Your task to perform on an android device: turn off data saver in the chrome app Image 0: 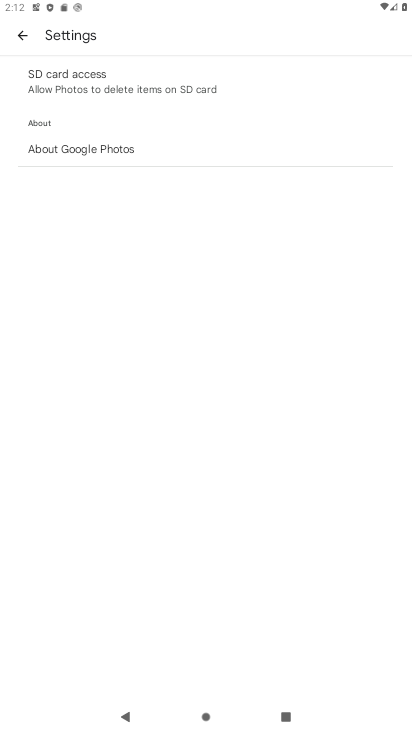
Step 0: press home button
Your task to perform on an android device: turn off data saver in the chrome app Image 1: 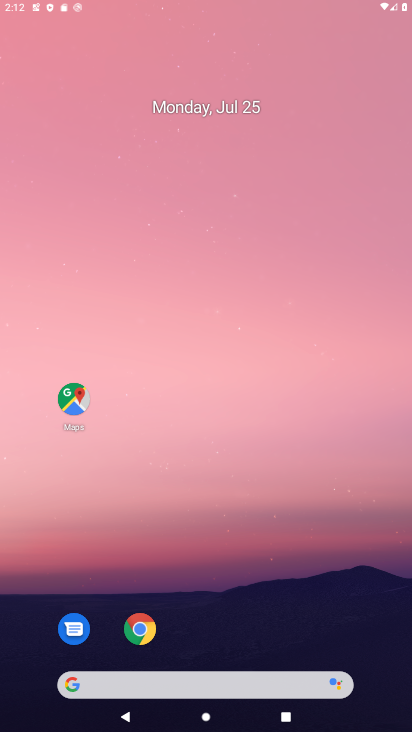
Step 1: drag from (230, 605) to (299, 74)
Your task to perform on an android device: turn off data saver in the chrome app Image 2: 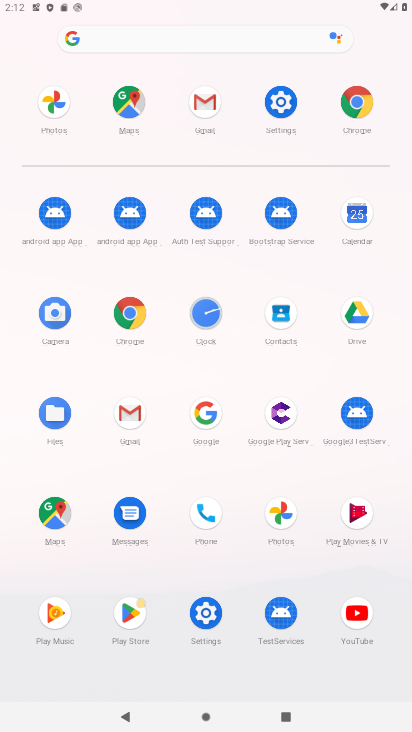
Step 2: click (122, 310)
Your task to perform on an android device: turn off data saver in the chrome app Image 3: 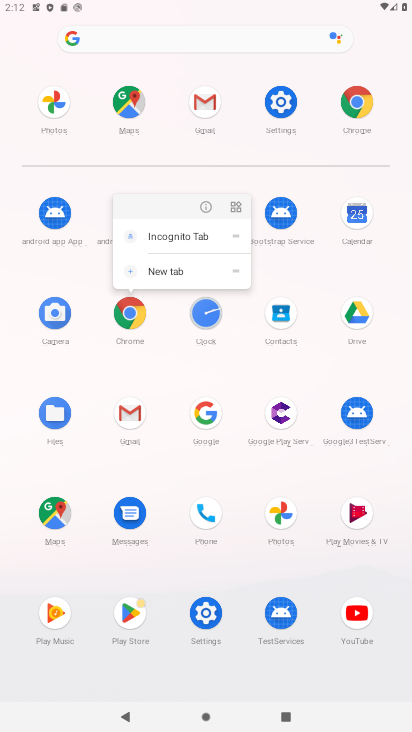
Step 3: click (210, 207)
Your task to perform on an android device: turn off data saver in the chrome app Image 4: 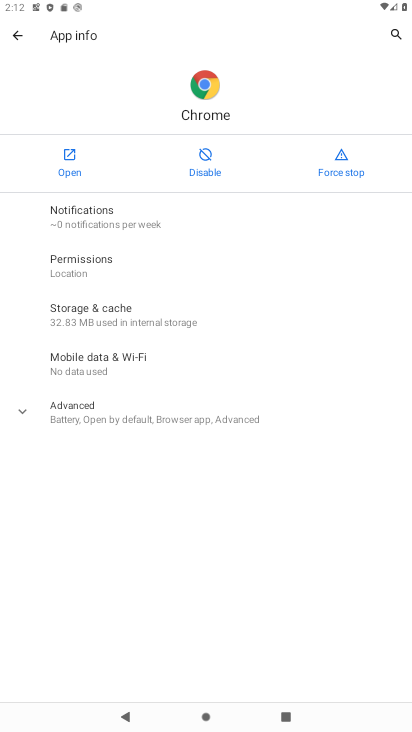
Step 4: click (69, 148)
Your task to perform on an android device: turn off data saver in the chrome app Image 5: 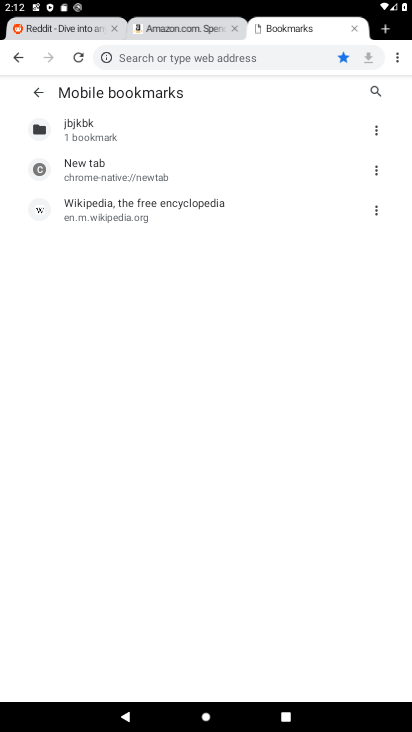
Step 5: drag from (396, 62) to (301, 308)
Your task to perform on an android device: turn off data saver in the chrome app Image 6: 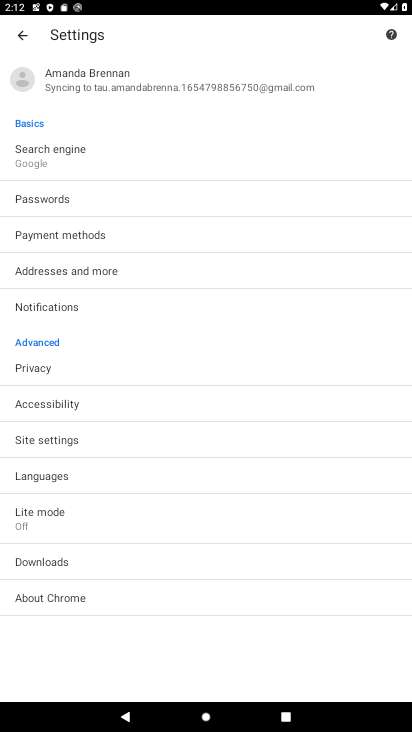
Step 6: click (71, 481)
Your task to perform on an android device: turn off data saver in the chrome app Image 7: 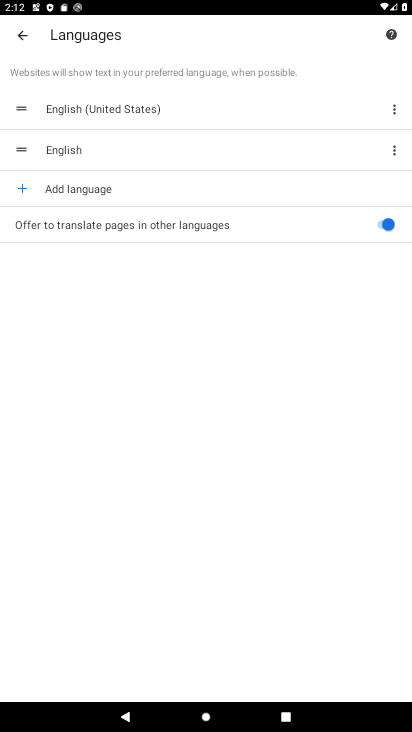
Step 7: click (18, 36)
Your task to perform on an android device: turn off data saver in the chrome app Image 8: 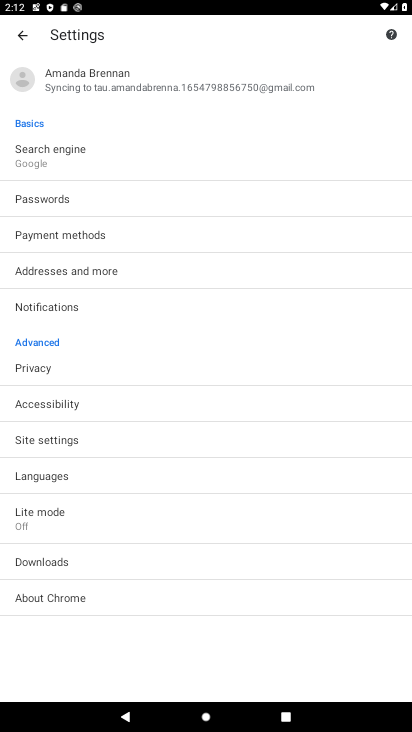
Step 8: click (109, 525)
Your task to perform on an android device: turn off data saver in the chrome app Image 9: 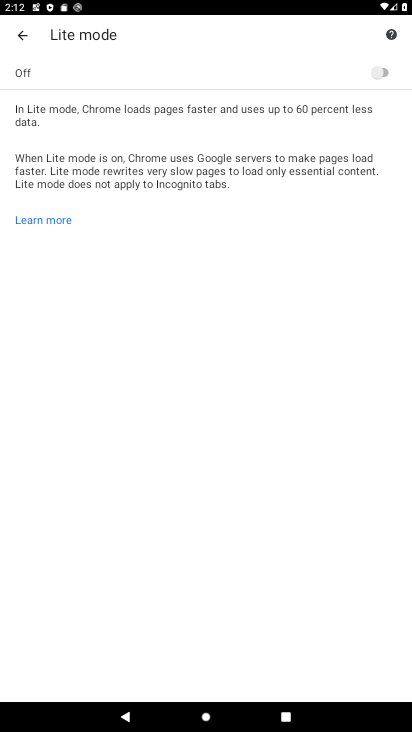
Step 9: task complete